Your task to perform on an android device: change timer sound Image 0: 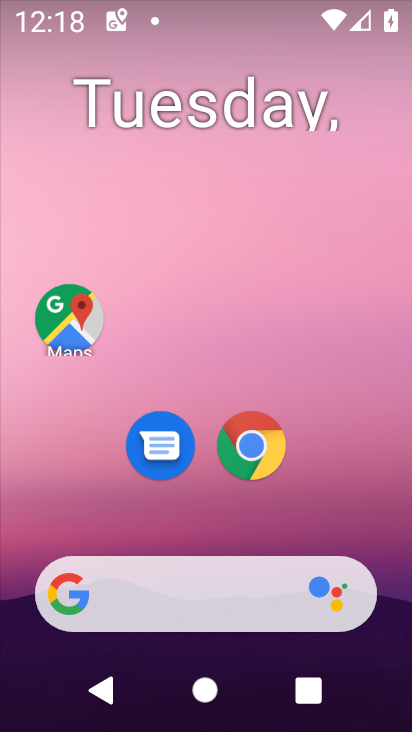
Step 0: drag from (370, 516) to (373, 237)
Your task to perform on an android device: change timer sound Image 1: 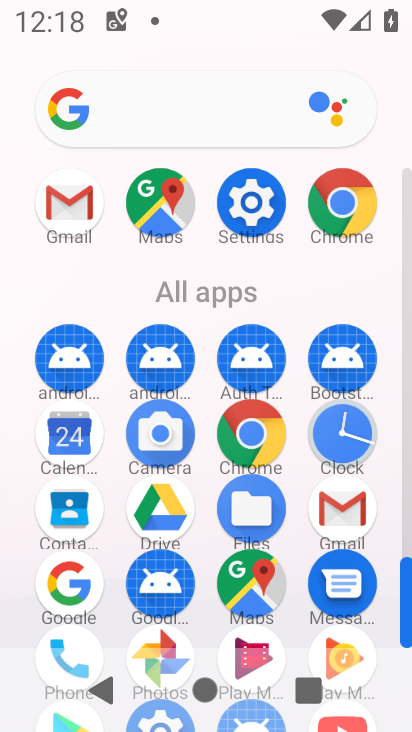
Step 1: click (354, 450)
Your task to perform on an android device: change timer sound Image 2: 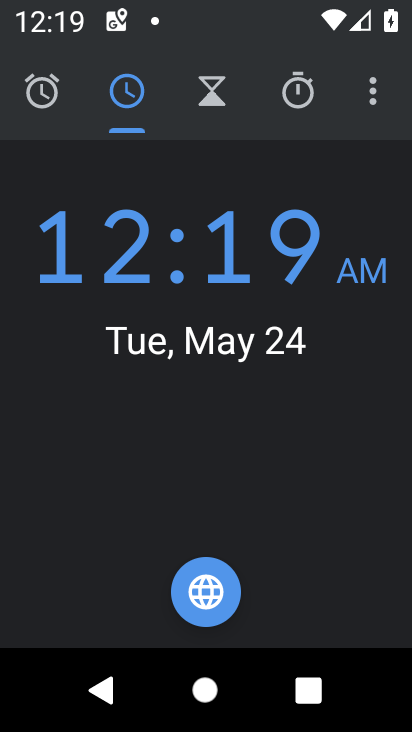
Step 2: click (371, 105)
Your task to perform on an android device: change timer sound Image 3: 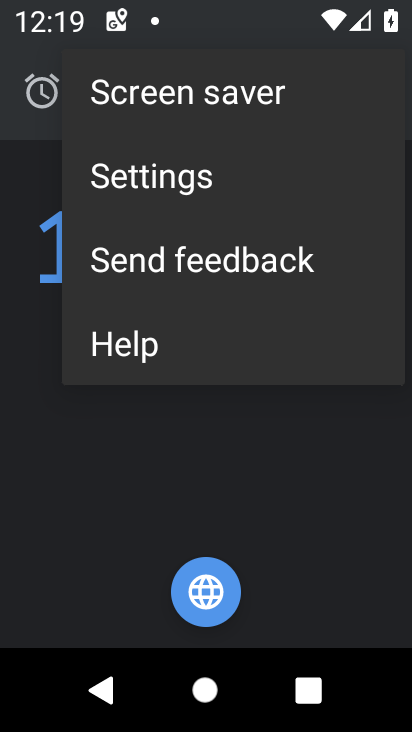
Step 3: click (176, 195)
Your task to perform on an android device: change timer sound Image 4: 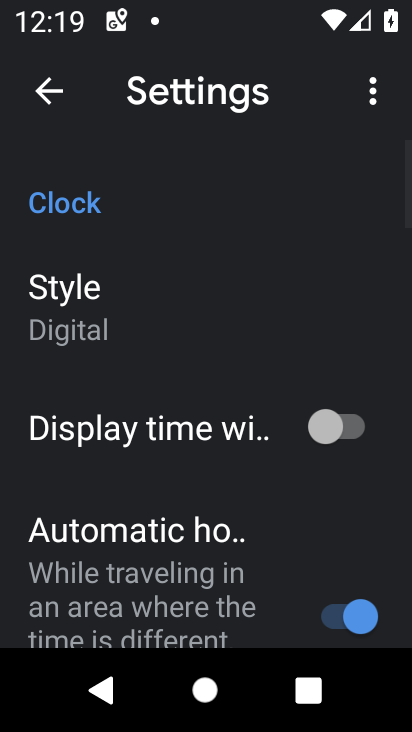
Step 4: drag from (258, 415) to (286, 304)
Your task to perform on an android device: change timer sound Image 5: 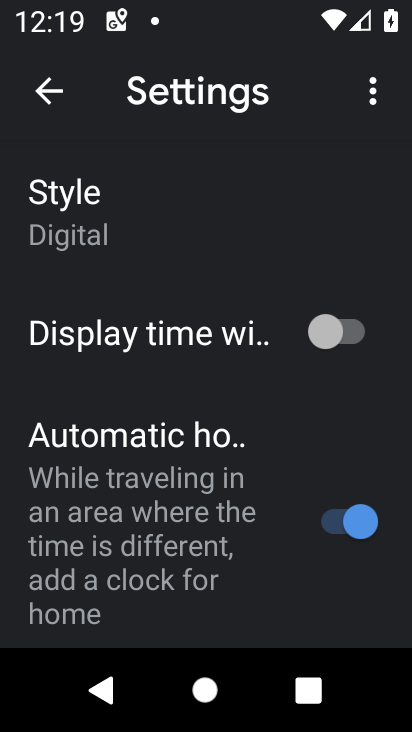
Step 5: drag from (262, 460) to (270, 379)
Your task to perform on an android device: change timer sound Image 6: 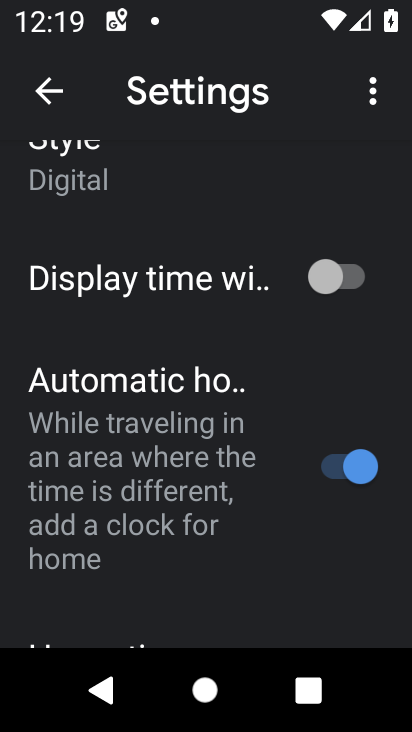
Step 6: drag from (277, 485) to (285, 406)
Your task to perform on an android device: change timer sound Image 7: 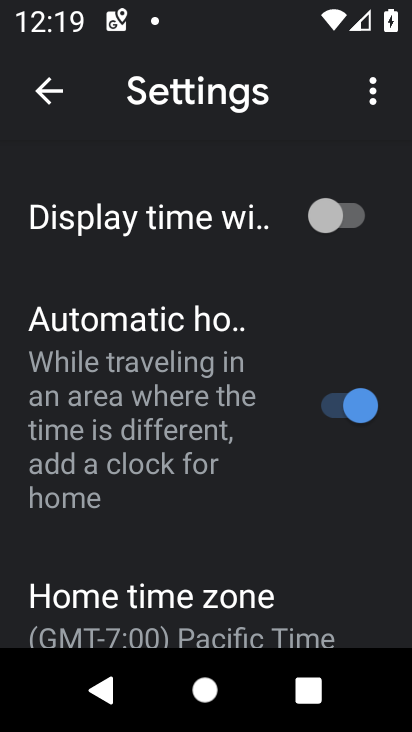
Step 7: drag from (274, 489) to (289, 400)
Your task to perform on an android device: change timer sound Image 8: 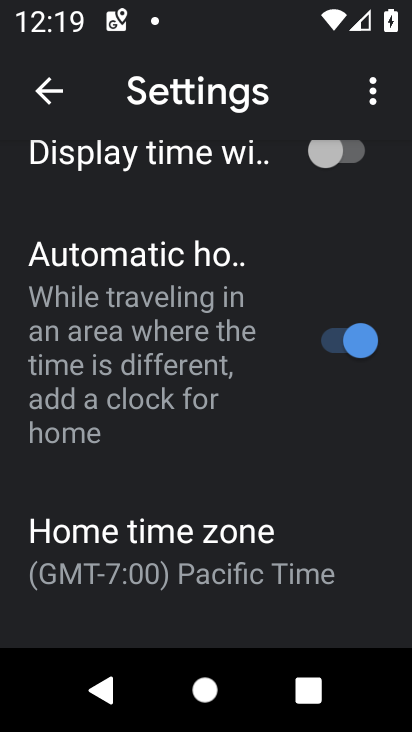
Step 8: drag from (296, 493) to (300, 421)
Your task to perform on an android device: change timer sound Image 9: 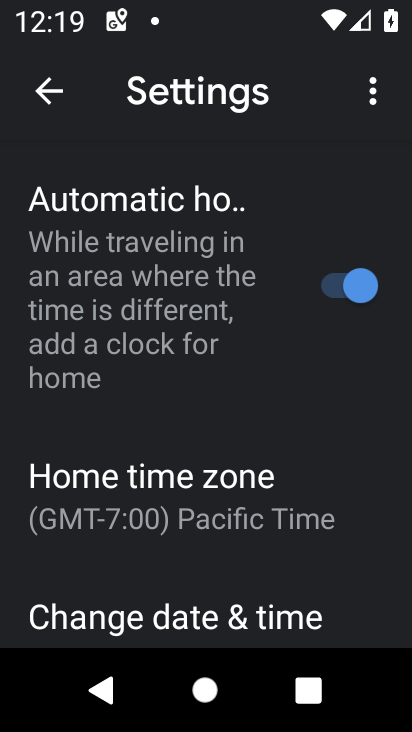
Step 9: drag from (299, 540) to (314, 448)
Your task to perform on an android device: change timer sound Image 10: 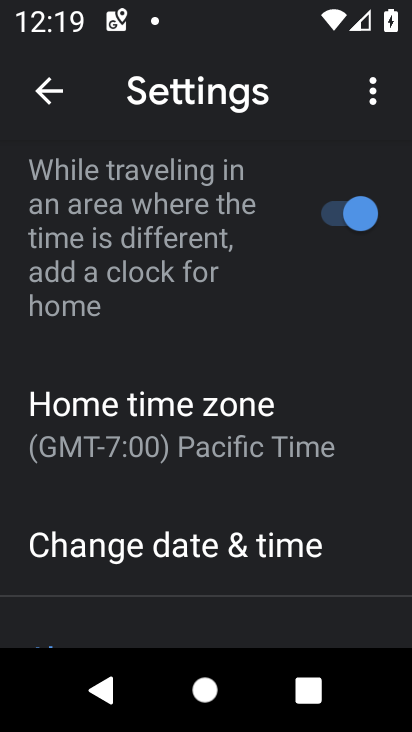
Step 10: drag from (320, 559) to (323, 452)
Your task to perform on an android device: change timer sound Image 11: 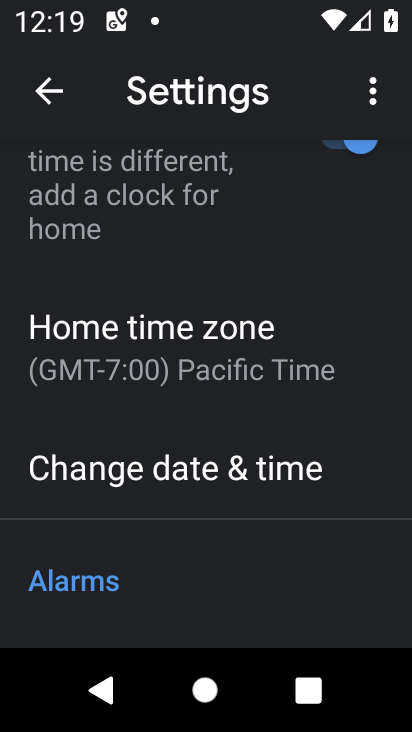
Step 11: drag from (317, 563) to (340, 472)
Your task to perform on an android device: change timer sound Image 12: 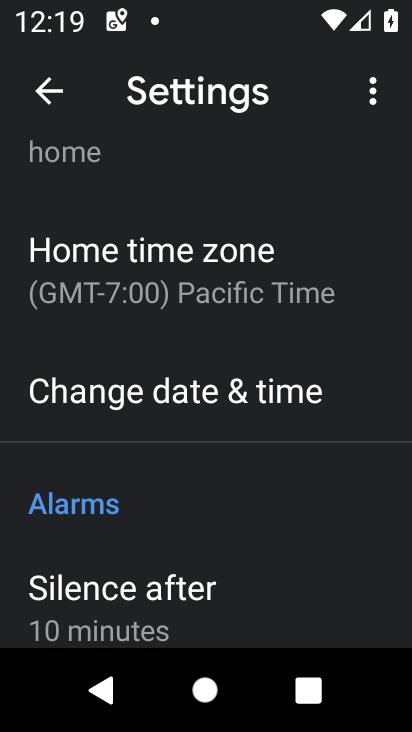
Step 12: drag from (340, 563) to (334, 464)
Your task to perform on an android device: change timer sound Image 13: 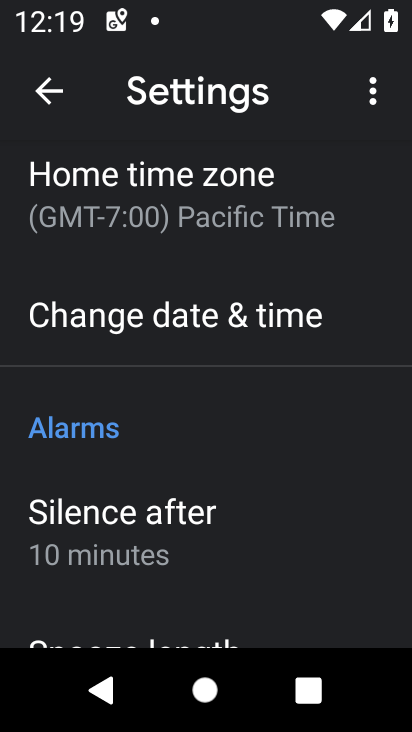
Step 13: drag from (349, 546) to (350, 445)
Your task to perform on an android device: change timer sound Image 14: 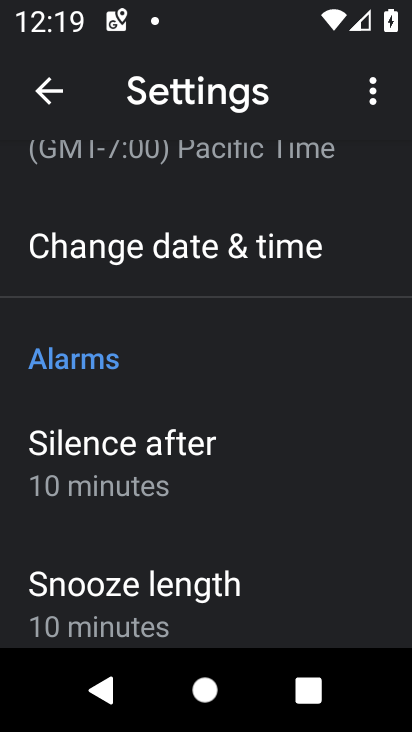
Step 14: drag from (350, 572) to (367, 454)
Your task to perform on an android device: change timer sound Image 15: 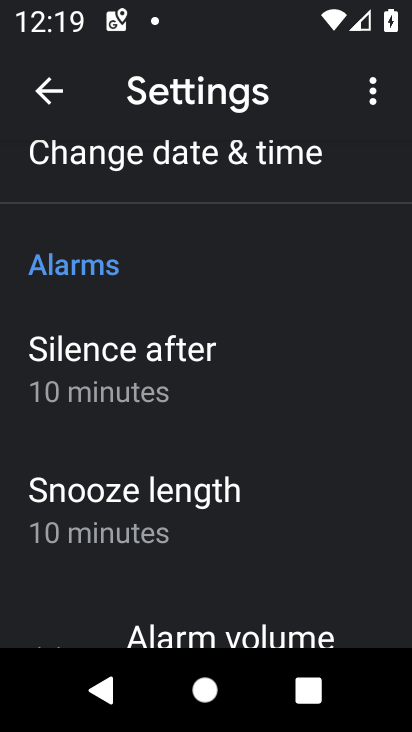
Step 15: drag from (351, 555) to (338, 431)
Your task to perform on an android device: change timer sound Image 16: 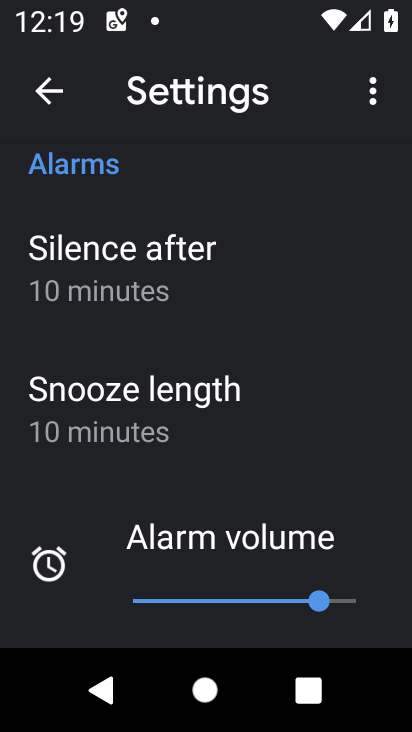
Step 16: drag from (350, 570) to (333, 457)
Your task to perform on an android device: change timer sound Image 17: 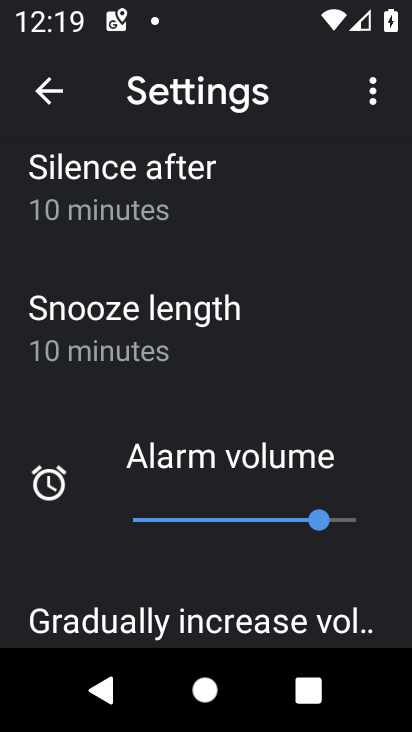
Step 17: drag from (368, 566) to (370, 461)
Your task to perform on an android device: change timer sound Image 18: 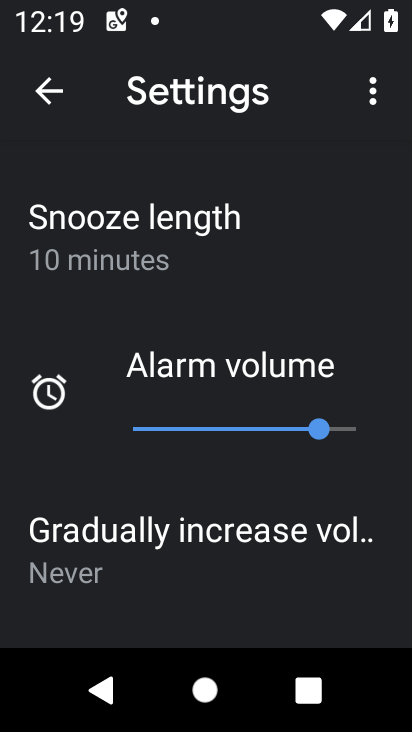
Step 18: drag from (384, 586) to (386, 486)
Your task to perform on an android device: change timer sound Image 19: 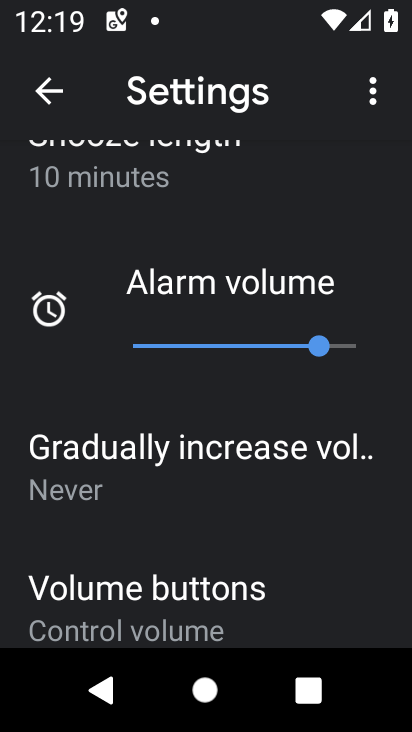
Step 19: drag from (360, 588) to (370, 441)
Your task to perform on an android device: change timer sound Image 20: 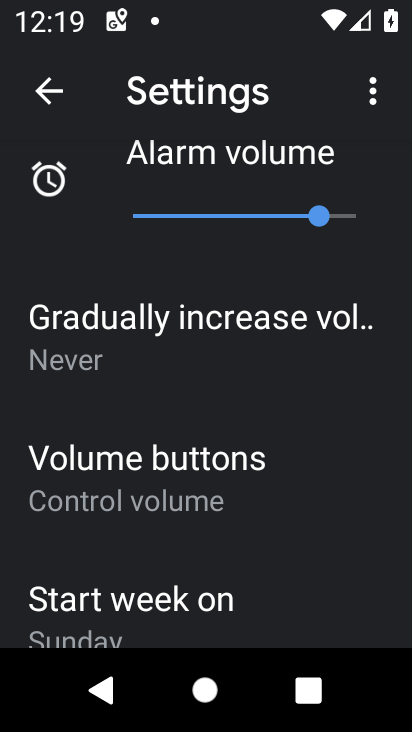
Step 20: drag from (348, 569) to (349, 424)
Your task to perform on an android device: change timer sound Image 21: 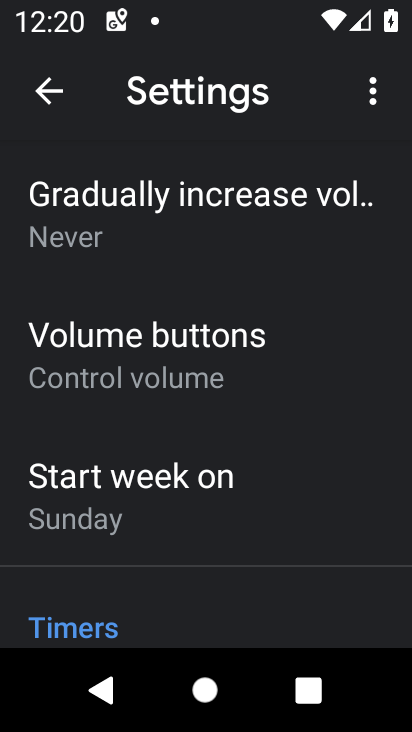
Step 21: drag from (321, 587) to (343, 445)
Your task to perform on an android device: change timer sound Image 22: 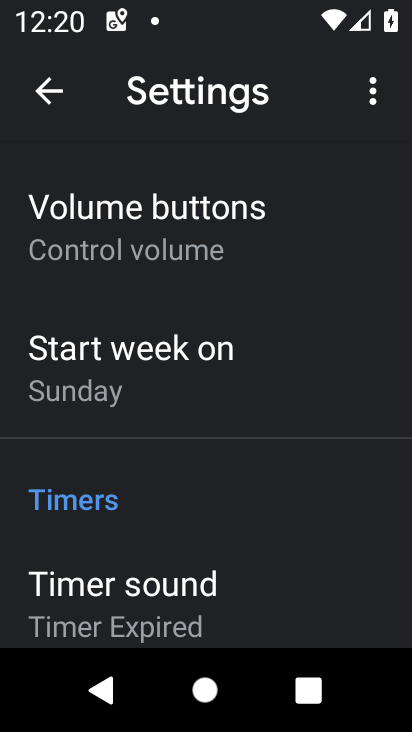
Step 22: drag from (321, 570) to (332, 440)
Your task to perform on an android device: change timer sound Image 23: 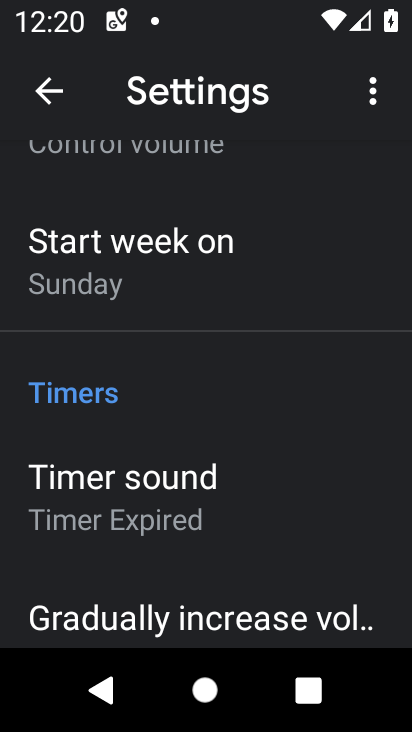
Step 23: click (142, 486)
Your task to perform on an android device: change timer sound Image 24: 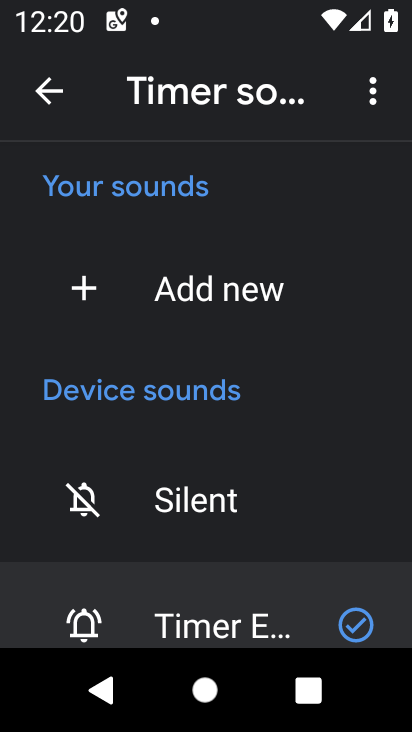
Step 24: drag from (314, 503) to (313, 342)
Your task to perform on an android device: change timer sound Image 25: 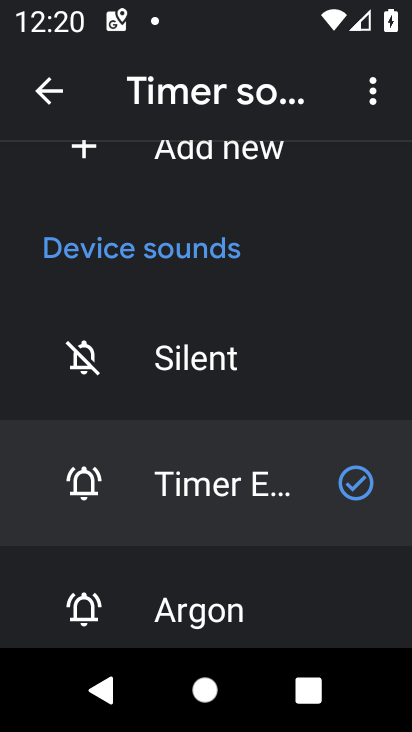
Step 25: drag from (307, 570) to (300, 310)
Your task to perform on an android device: change timer sound Image 26: 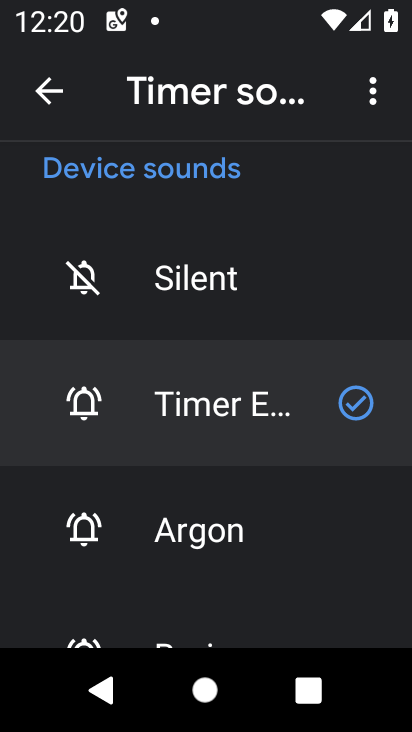
Step 26: click (205, 537)
Your task to perform on an android device: change timer sound Image 27: 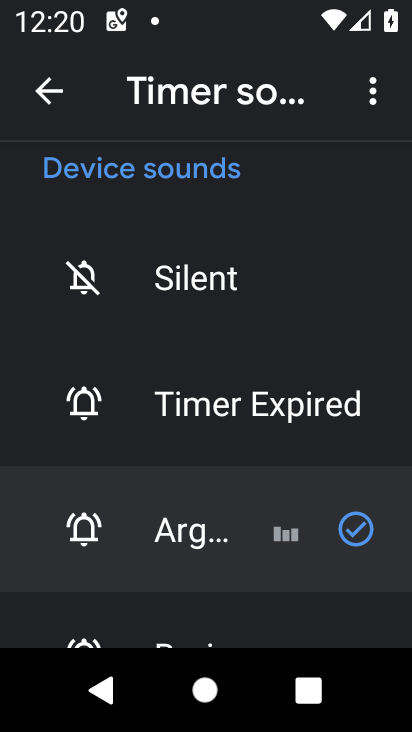
Step 27: task complete